Your task to perform on an android device: Open Yahoo.com Image 0: 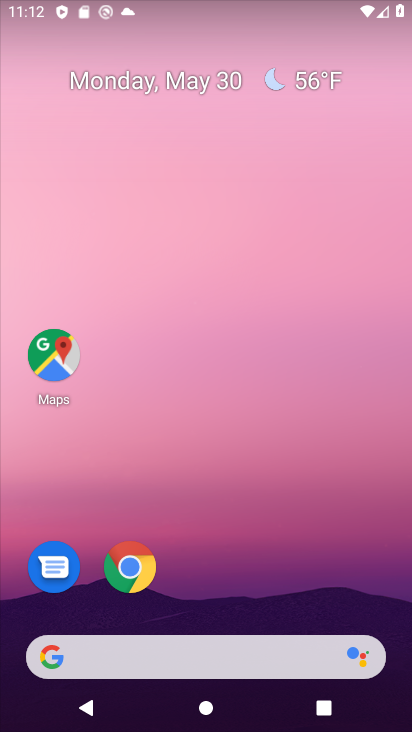
Step 0: click (131, 569)
Your task to perform on an android device: Open Yahoo.com Image 1: 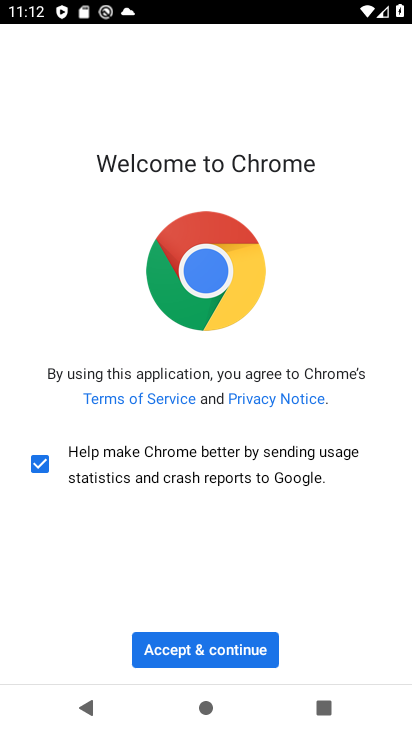
Step 1: click (198, 646)
Your task to perform on an android device: Open Yahoo.com Image 2: 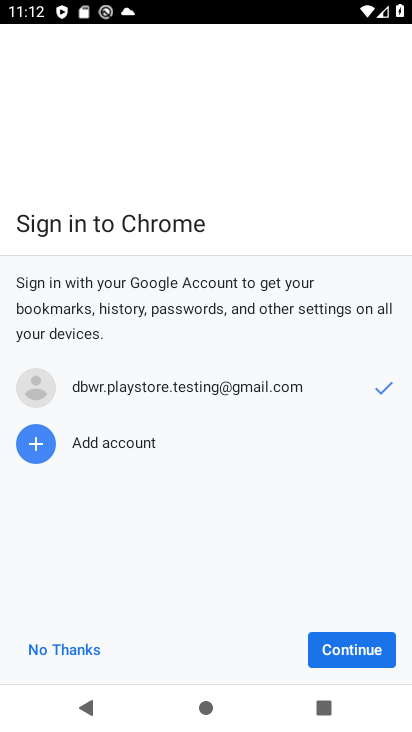
Step 2: click (361, 650)
Your task to perform on an android device: Open Yahoo.com Image 3: 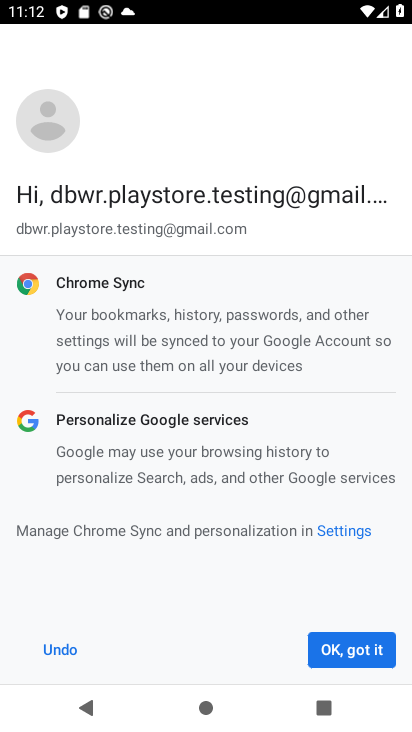
Step 3: click (353, 650)
Your task to perform on an android device: Open Yahoo.com Image 4: 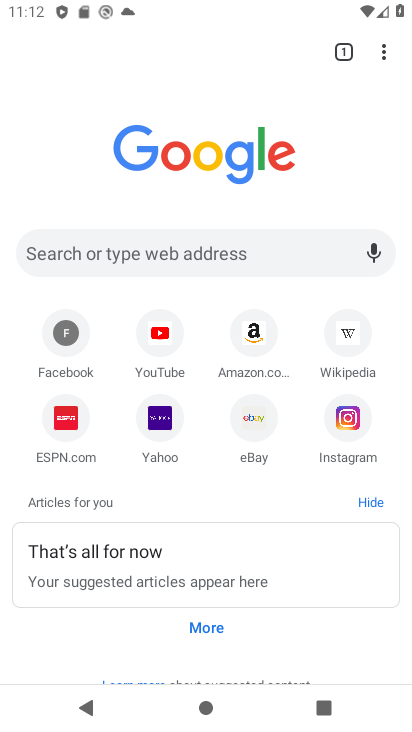
Step 4: click (158, 414)
Your task to perform on an android device: Open Yahoo.com Image 5: 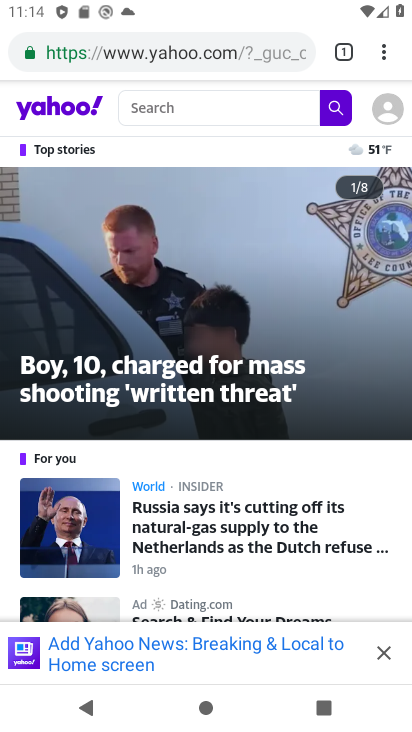
Step 5: task complete